Your task to perform on an android device: delete location history Image 0: 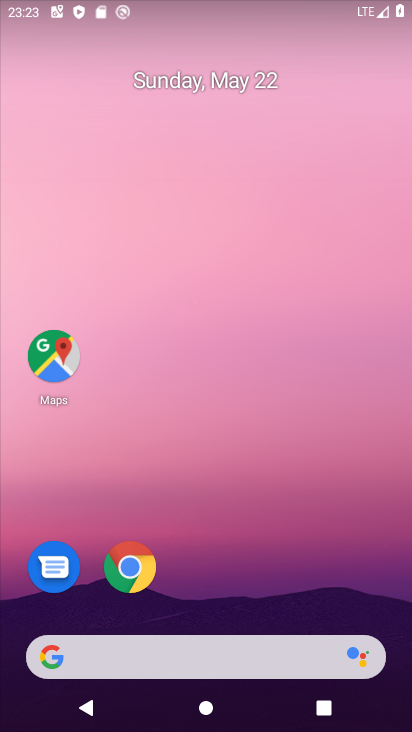
Step 0: drag from (215, 604) to (247, 51)
Your task to perform on an android device: delete location history Image 1: 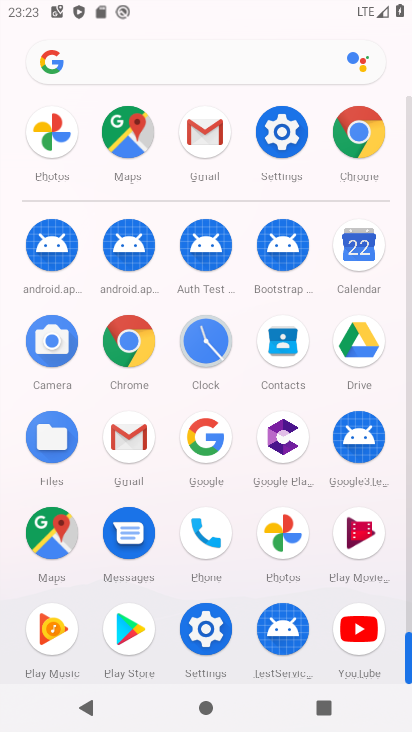
Step 1: drag from (11, 519) to (25, 229)
Your task to perform on an android device: delete location history Image 2: 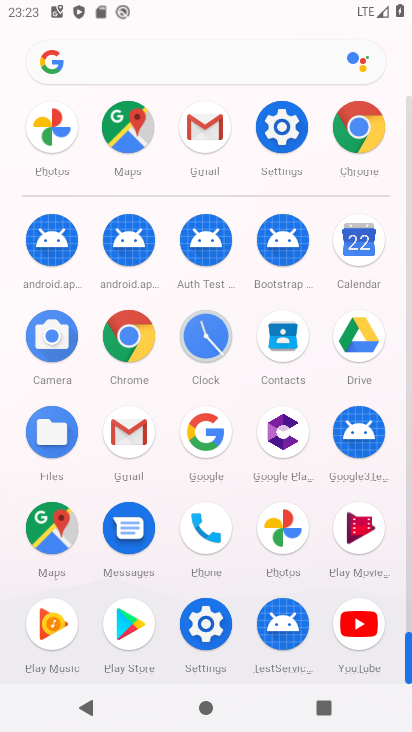
Step 2: click (207, 616)
Your task to perform on an android device: delete location history Image 3: 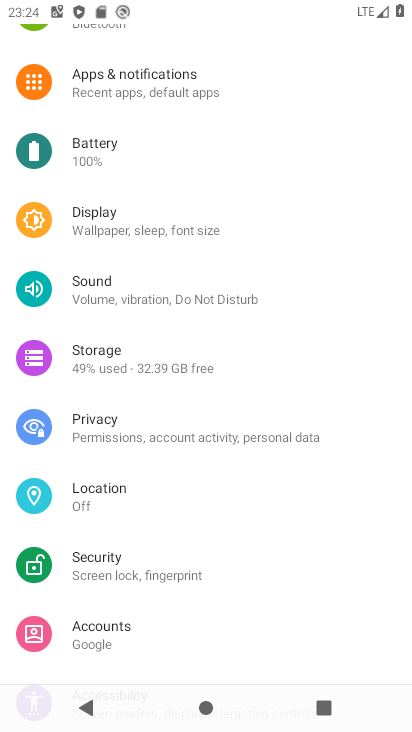
Step 3: drag from (210, 149) to (202, 590)
Your task to perform on an android device: delete location history Image 4: 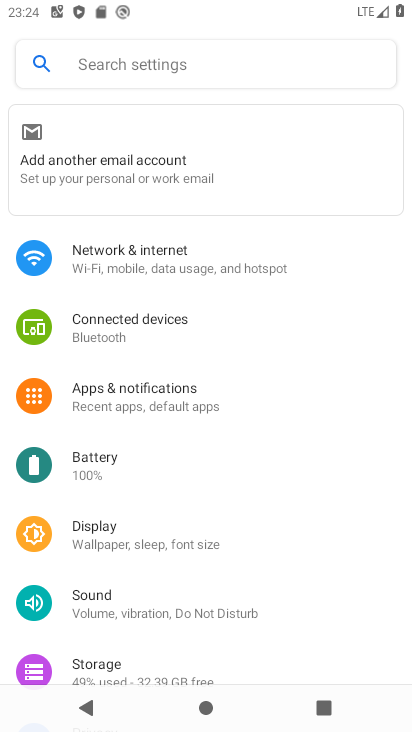
Step 4: drag from (182, 579) to (226, 250)
Your task to perform on an android device: delete location history Image 5: 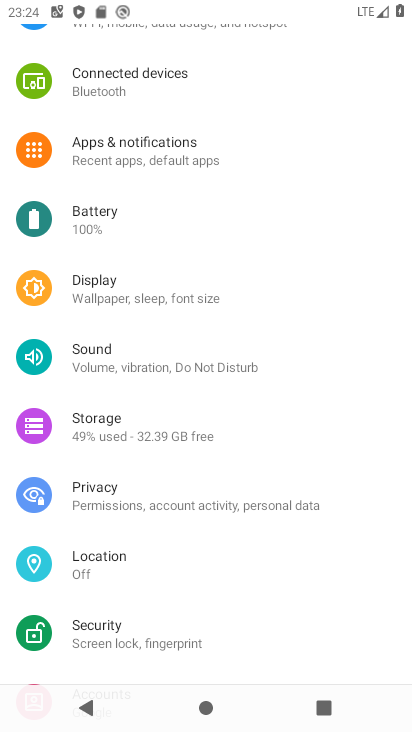
Step 5: drag from (225, 132) to (272, 559)
Your task to perform on an android device: delete location history Image 6: 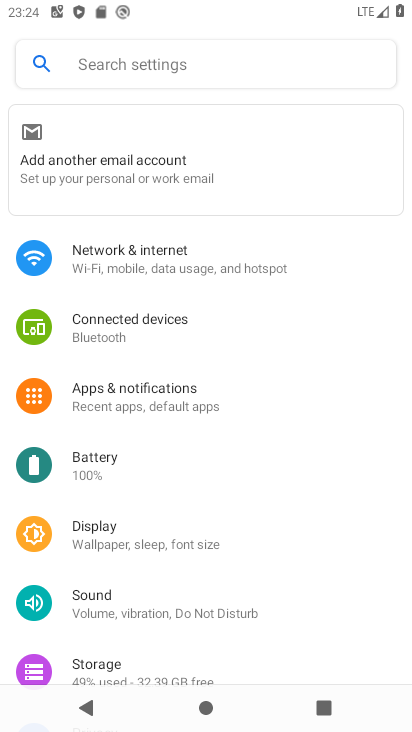
Step 6: drag from (280, 579) to (302, 242)
Your task to perform on an android device: delete location history Image 7: 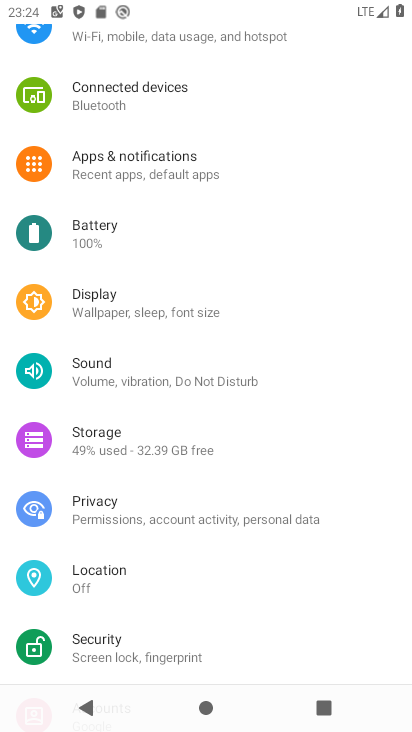
Step 7: click (151, 578)
Your task to perform on an android device: delete location history Image 8: 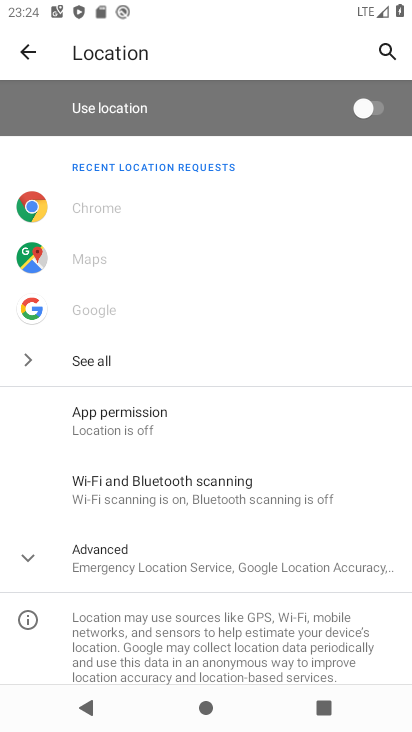
Step 8: click (36, 555)
Your task to perform on an android device: delete location history Image 9: 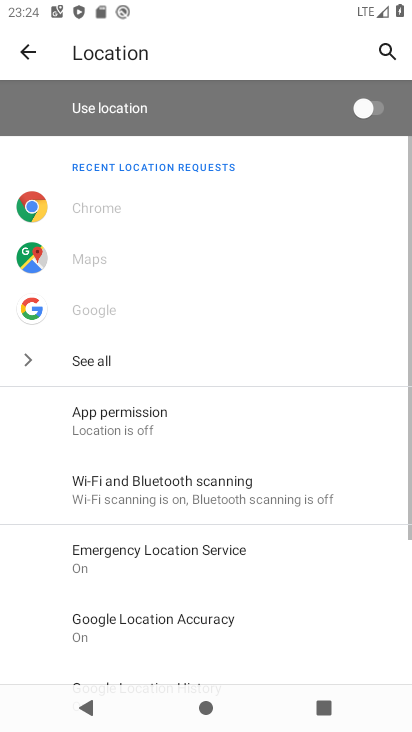
Step 9: drag from (293, 629) to (293, 205)
Your task to perform on an android device: delete location history Image 10: 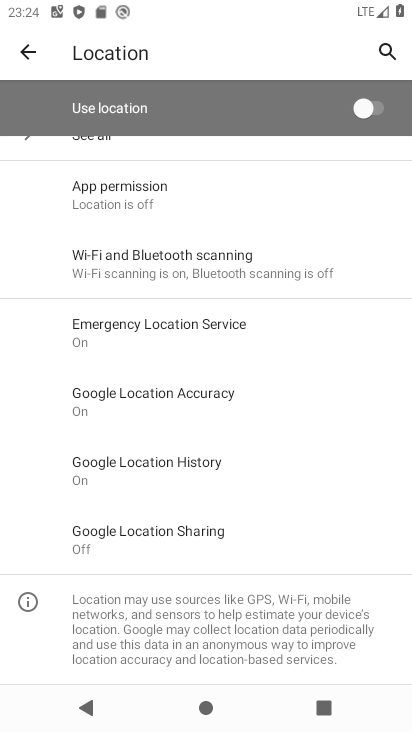
Step 10: click (162, 460)
Your task to perform on an android device: delete location history Image 11: 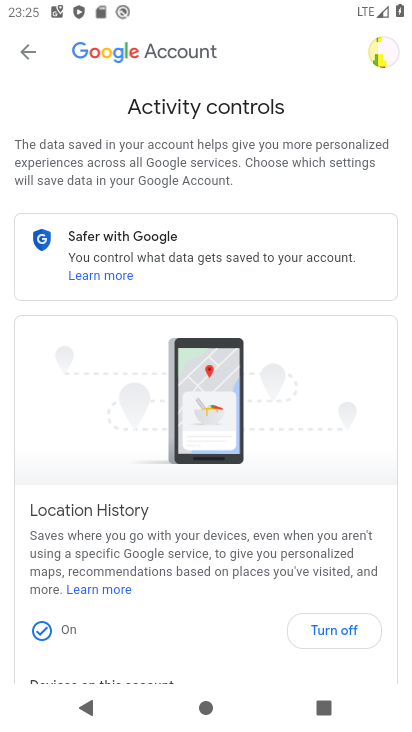
Step 11: drag from (212, 610) to (240, 90)
Your task to perform on an android device: delete location history Image 12: 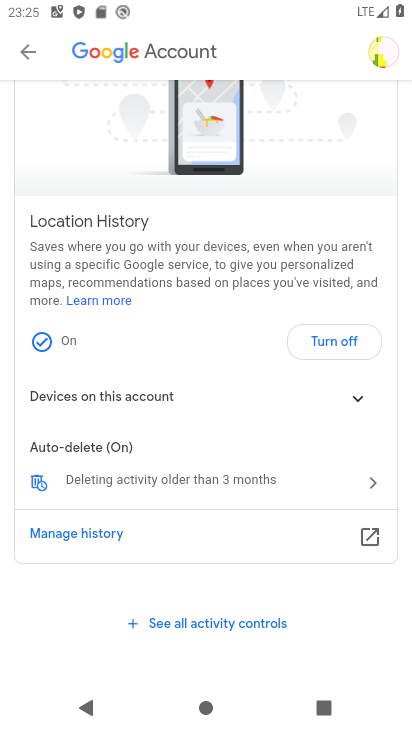
Step 12: click (132, 471)
Your task to perform on an android device: delete location history Image 13: 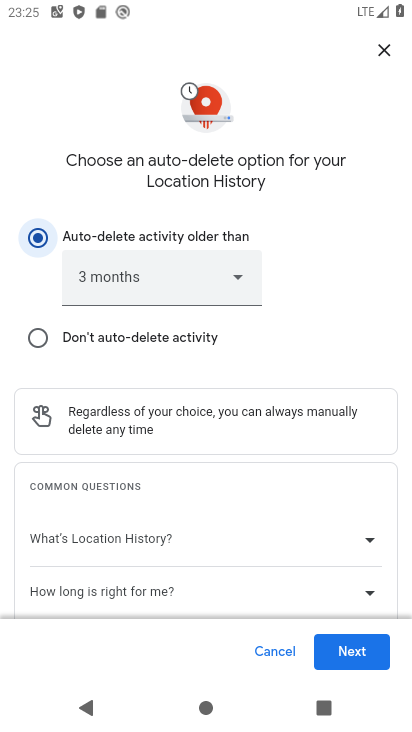
Step 13: click (363, 652)
Your task to perform on an android device: delete location history Image 14: 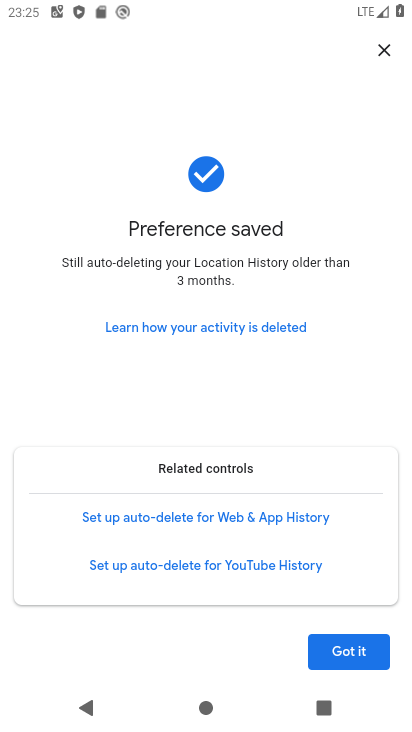
Step 14: task complete